Your task to perform on an android device: turn on sleep mode Image 0: 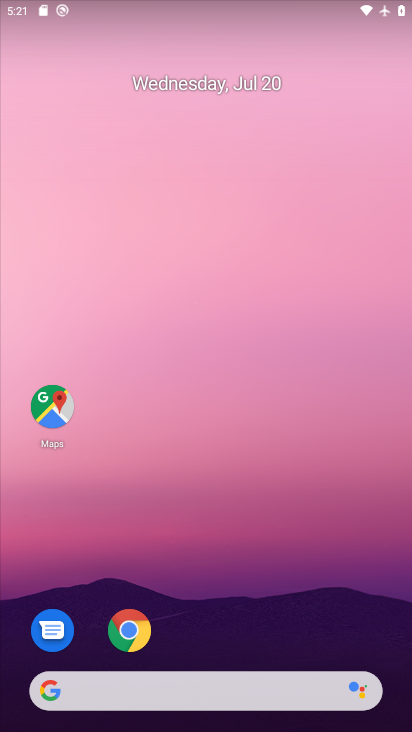
Step 0: press home button
Your task to perform on an android device: turn on sleep mode Image 1: 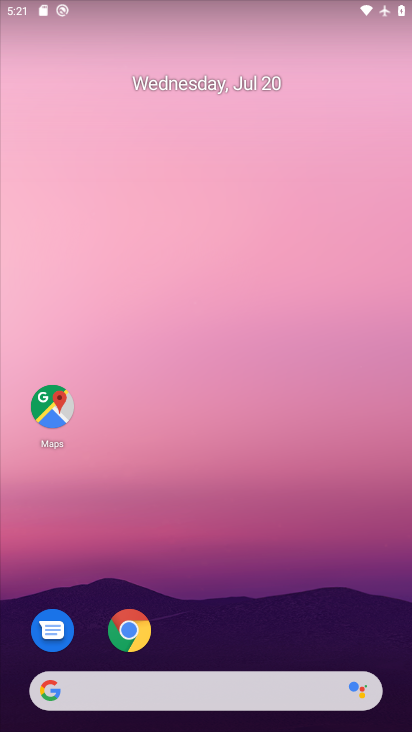
Step 1: drag from (260, 618) to (341, 5)
Your task to perform on an android device: turn on sleep mode Image 2: 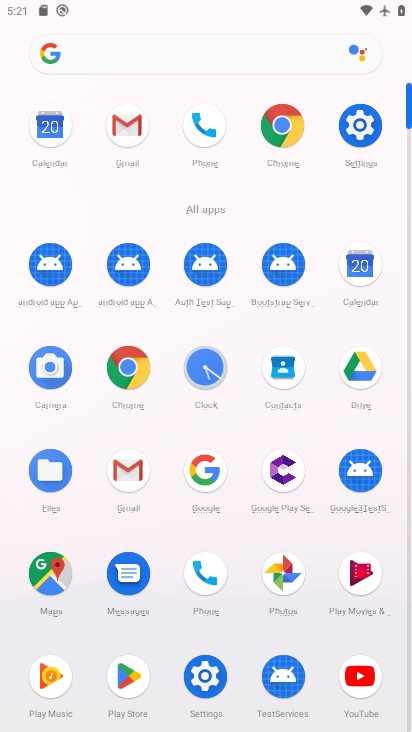
Step 2: click (347, 137)
Your task to perform on an android device: turn on sleep mode Image 3: 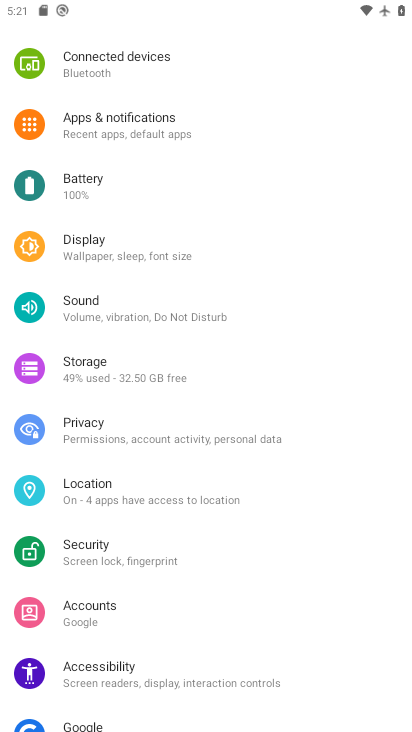
Step 3: click (106, 252)
Your task to perform on an android device: turn on sleep mode Image 4: 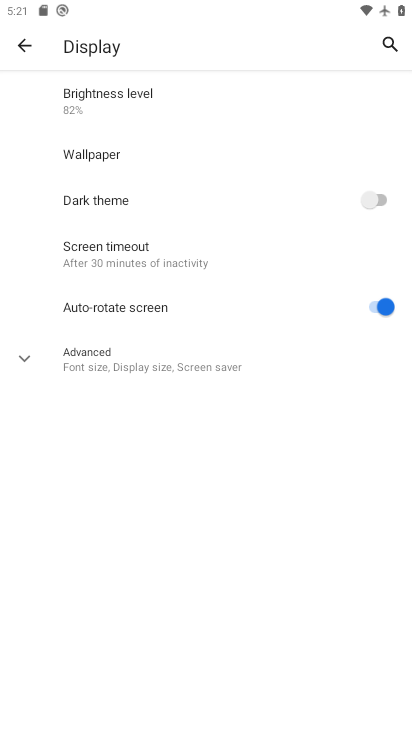
Step 4: task complete